Your task to perform on an android device: Search for logitech g910 on newegg, select the first entry, and add it to the cart. Image 0: 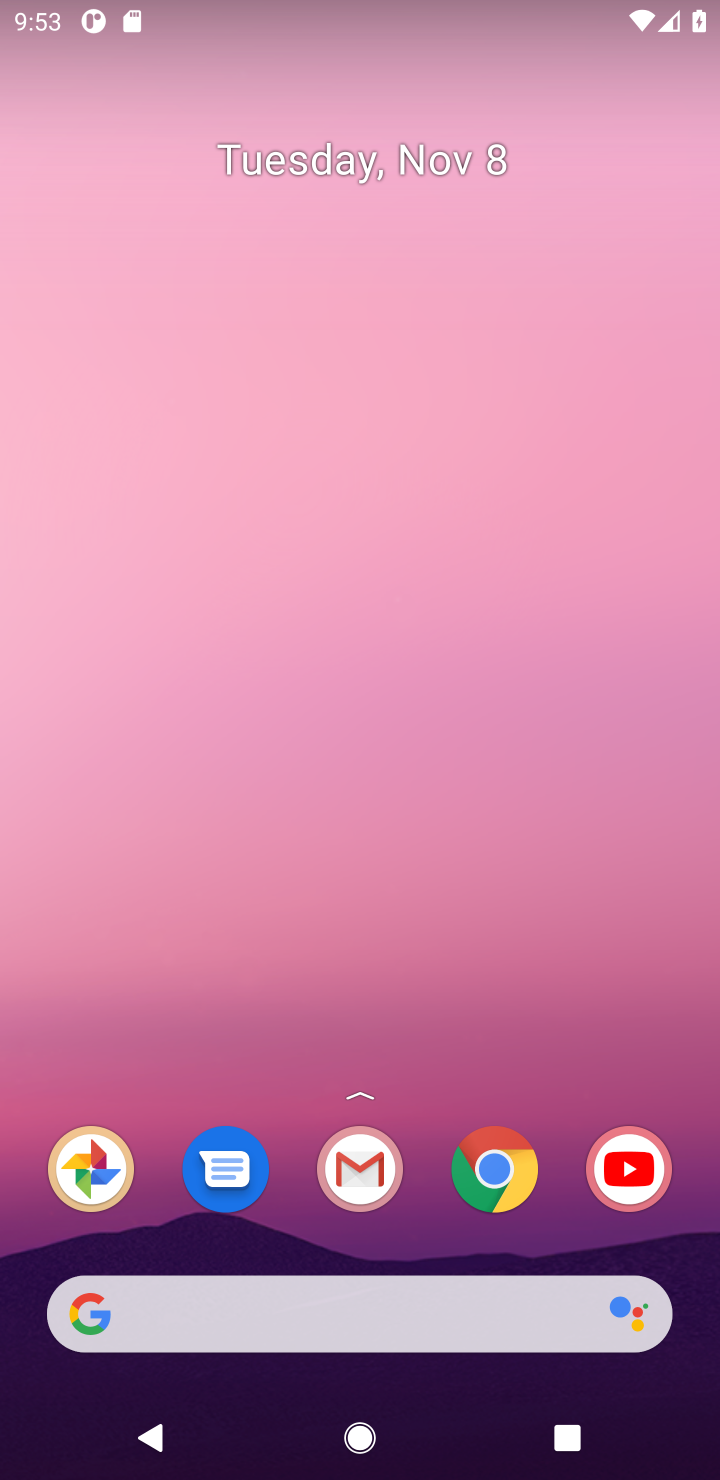
Step 0: click (476, 1169)
Your task to perform on an android device: Search for logitech g910 on newegg, select the first entry, and add it to the cart. Image 1: 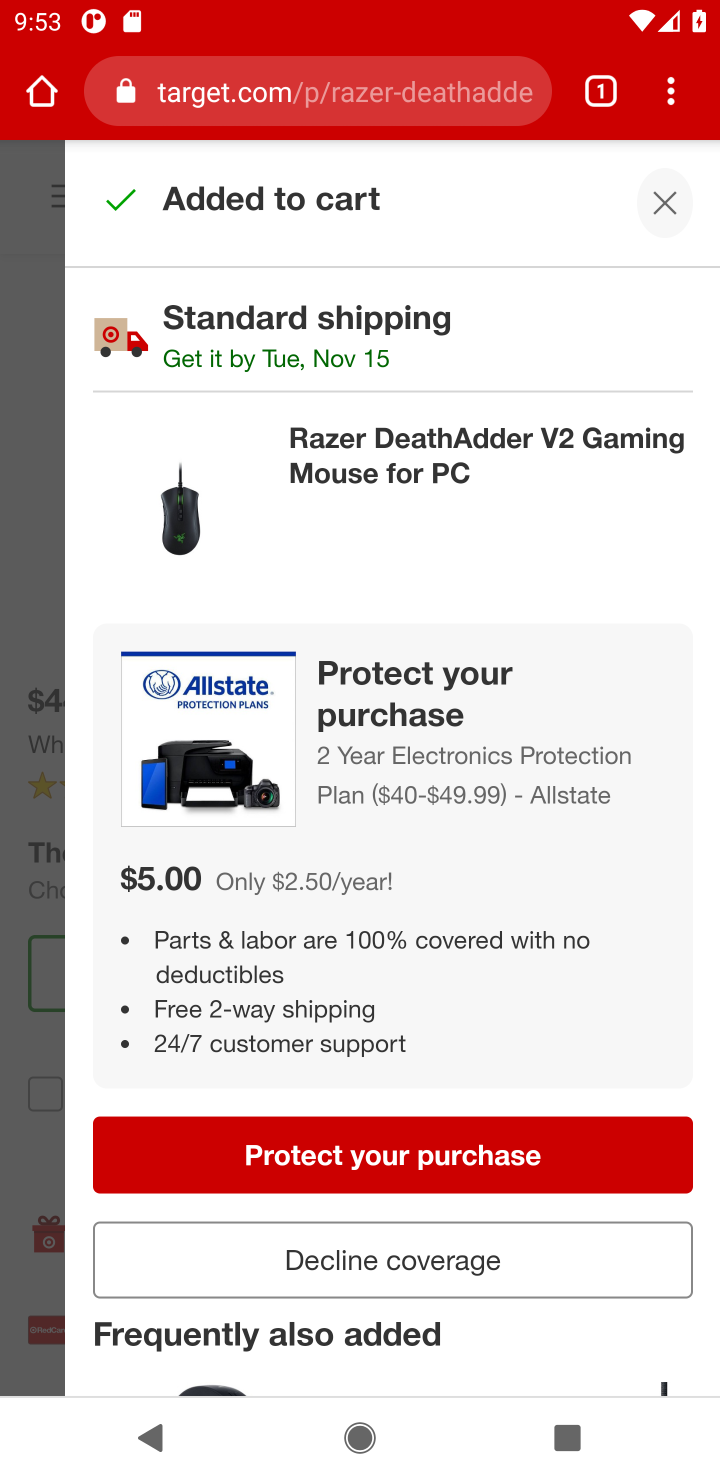
Step 1: click (673, 201)
Your task to perform on an android device: Search for logitech g910 on newegg, select the first entry, and add it to the cart. Image 2: 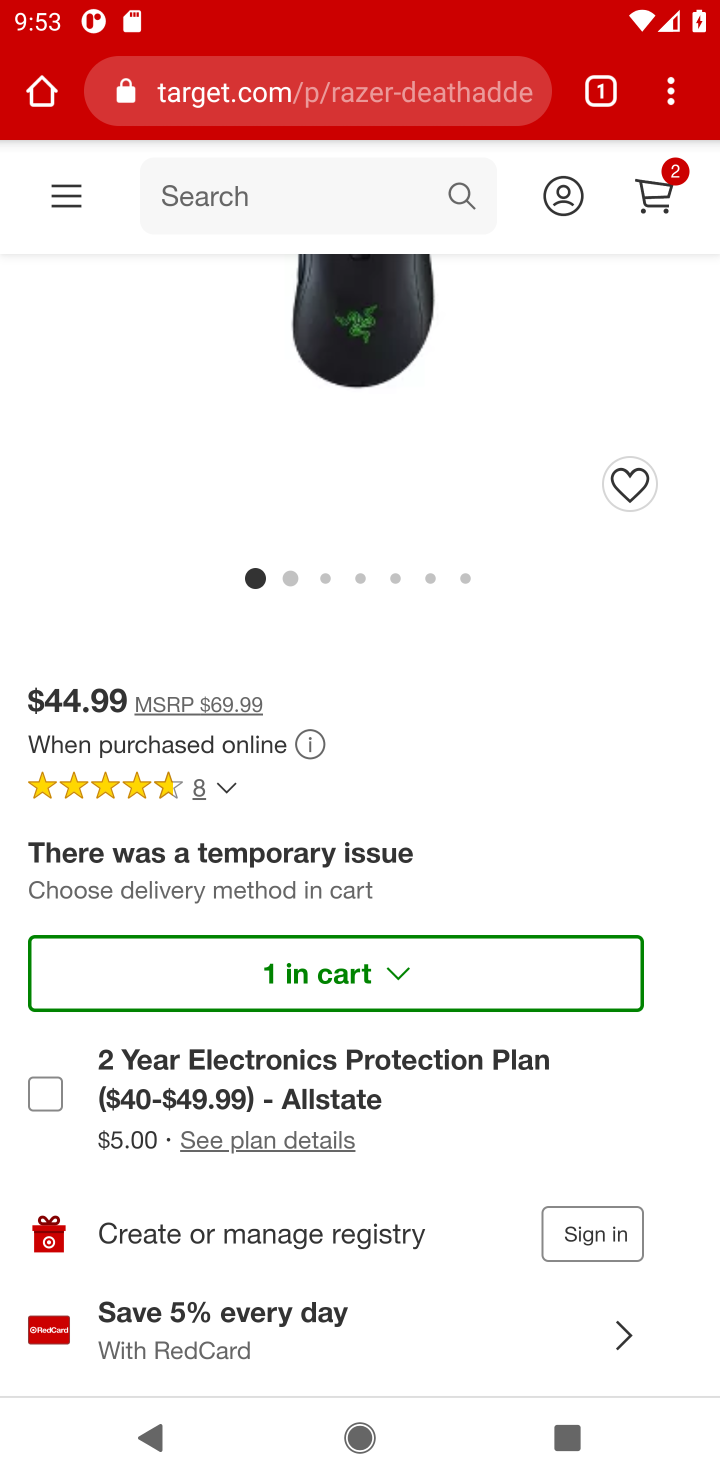
Step 2: click (450, 193)
Your task to perform on an android device: Search for logitech g910 on newegg, select the first entry, and add it to the cart. Image 3: 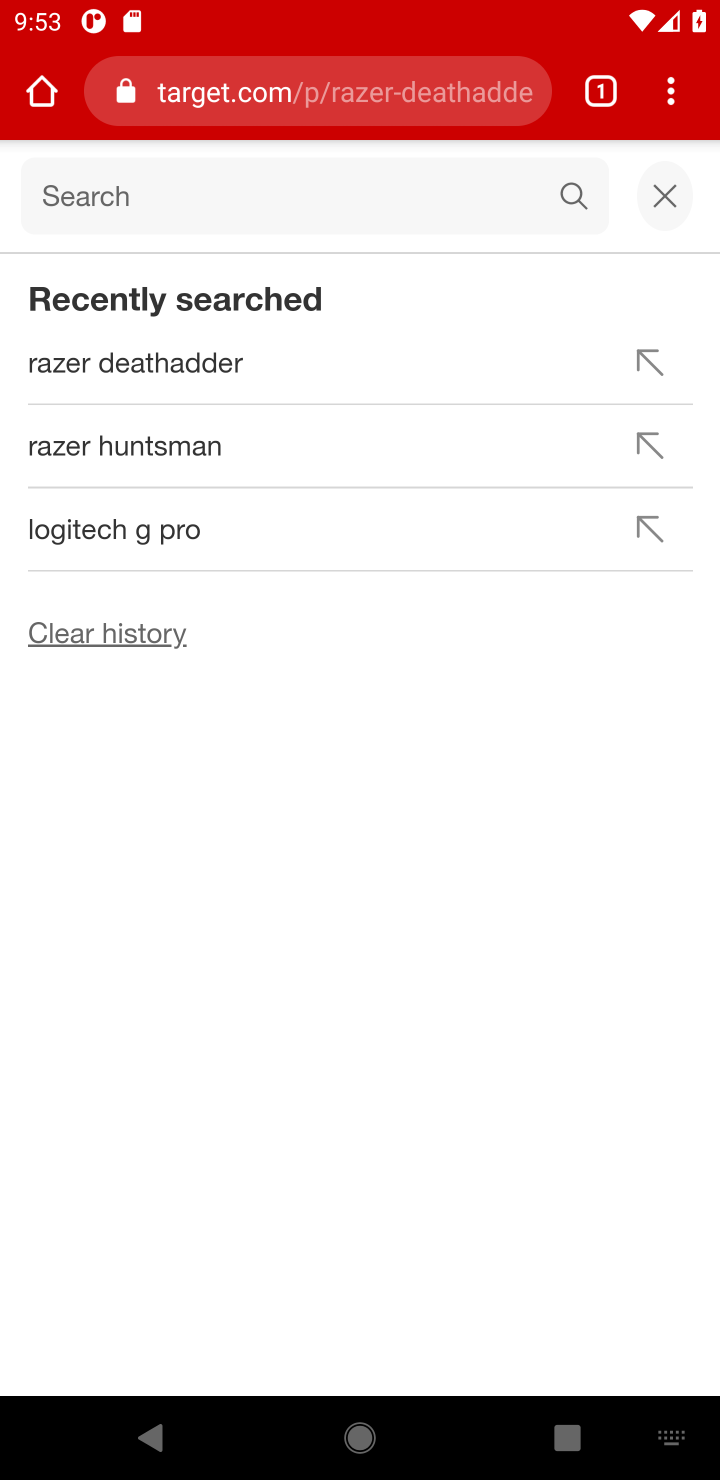
Step 3: type "newegg"
Your task to perform on an android device: Search for logitech g910 on newegg, select the first entry, and add it to the cart. Image 4: 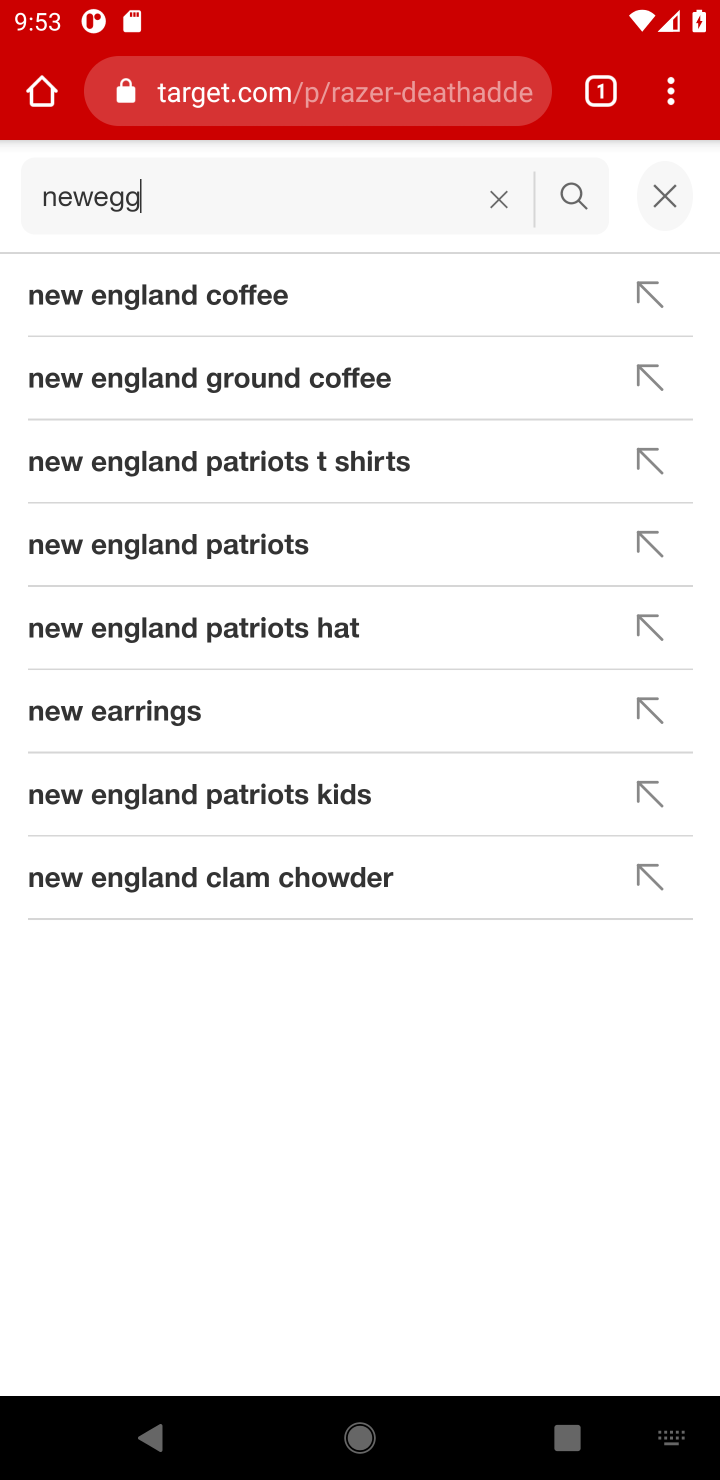
Step 4: click (265, 79)
Your task to perform on an android device: Search for logitech g910 on newegg, select the first entry, and add it to the cart. Image 5: 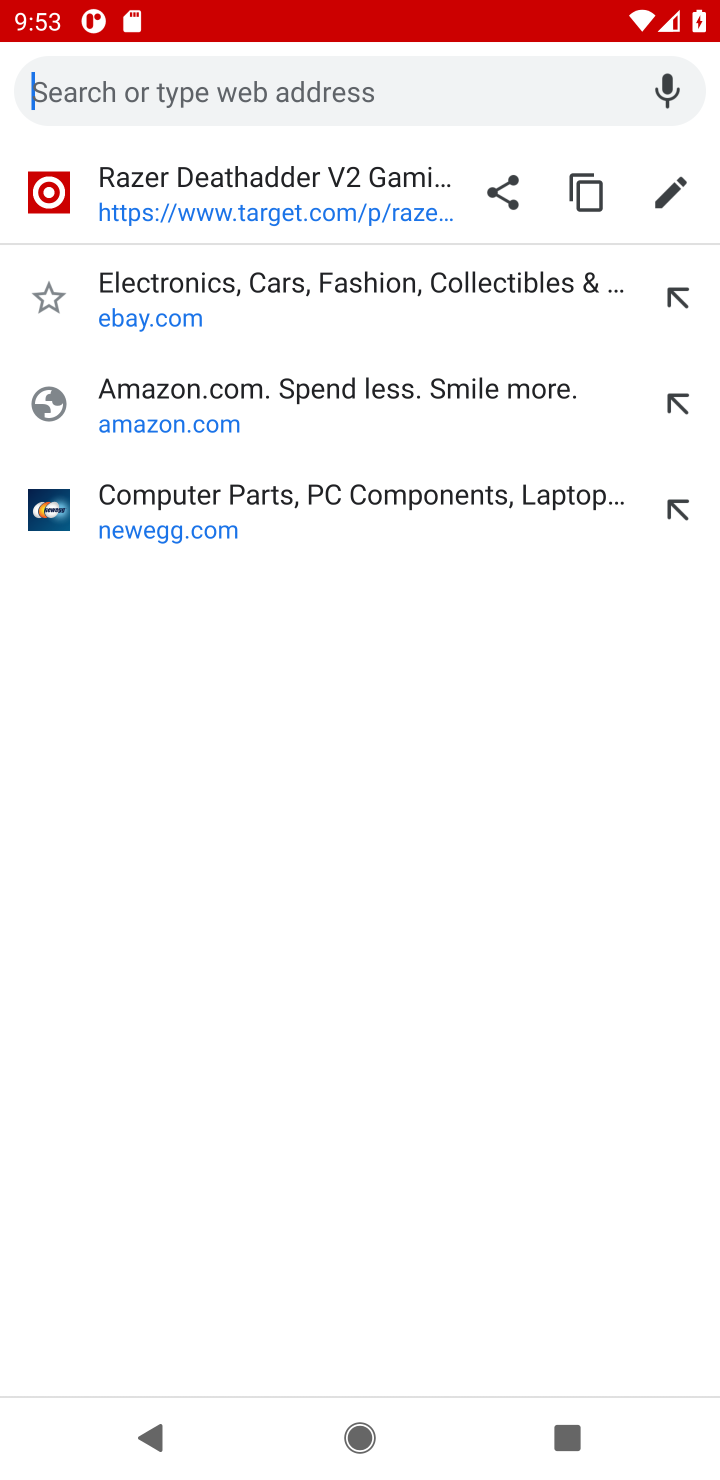
Step 5: type "newegg"
Your task to perform on an android device: Search for logitech g910 on newegg, select the first entry, and add it to the cart. Image 6: 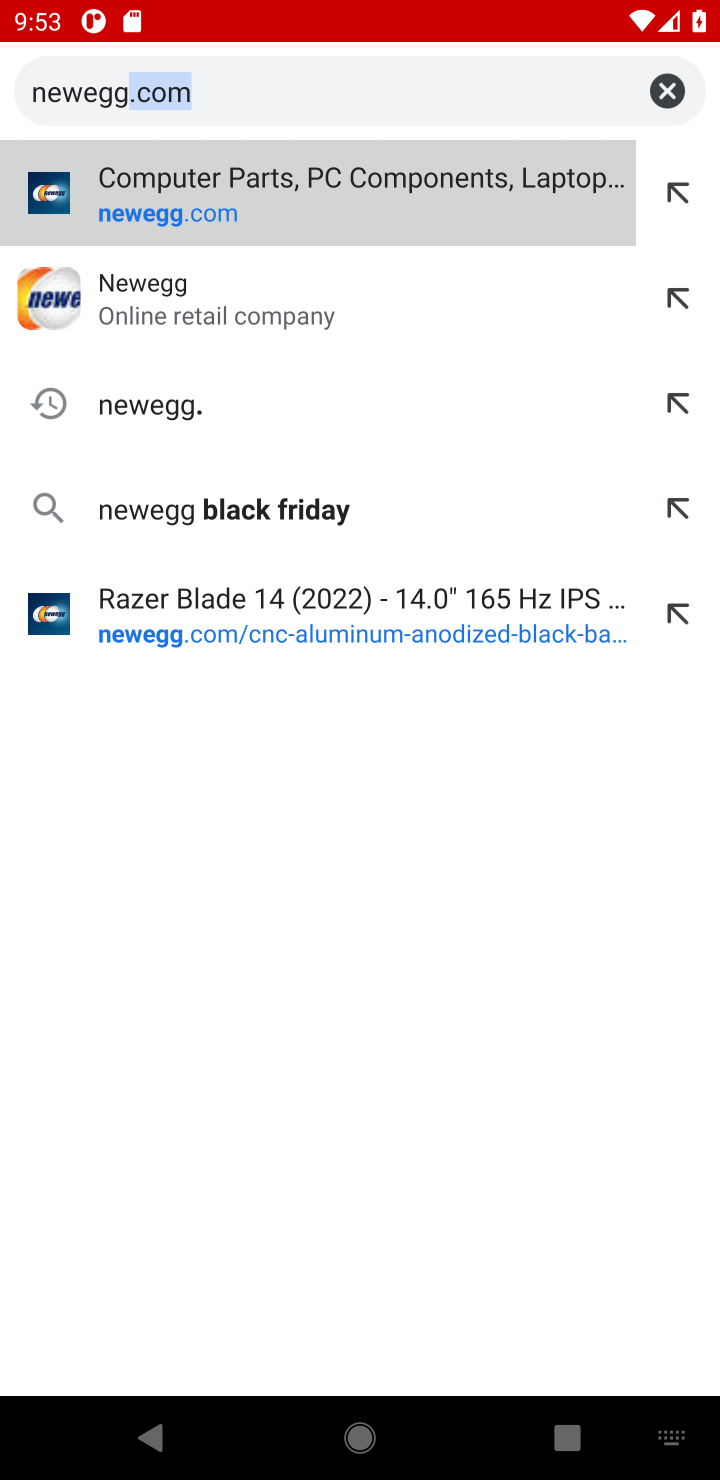
Step 6: click (327, 102)
Your task to perform on an android device: Search for logitech g910 on newegg, select the first entry, and add it to the cart. Image 7: 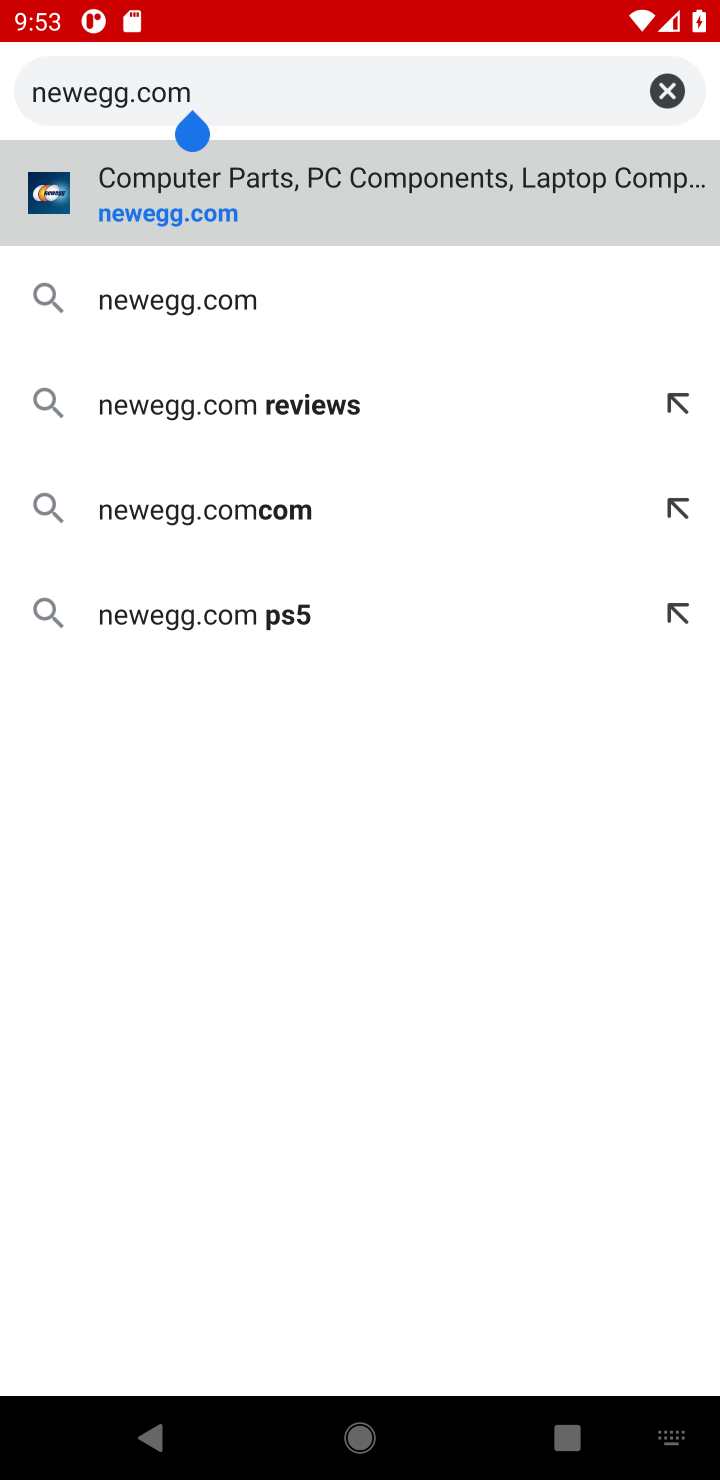
Step 7: click (229, 304)
Your task to perform on an android device: Search for logitech g910 on newegg, select the first entry, and add it to the cart. Image 8: 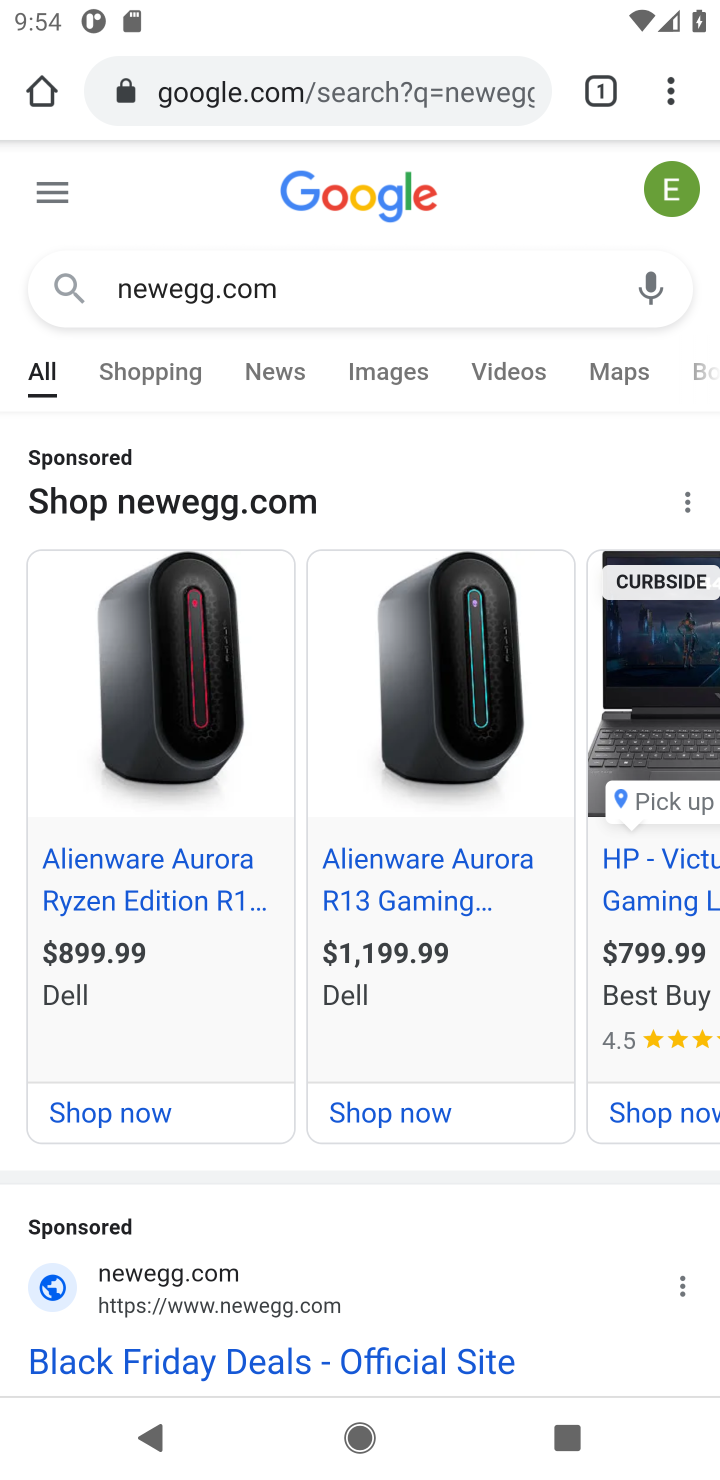
Step 8: click (288, 1294)
Your task to perform on an android device: Search for logitech g910 on newegg, select the first entry, and add it to the cart. Image 9: 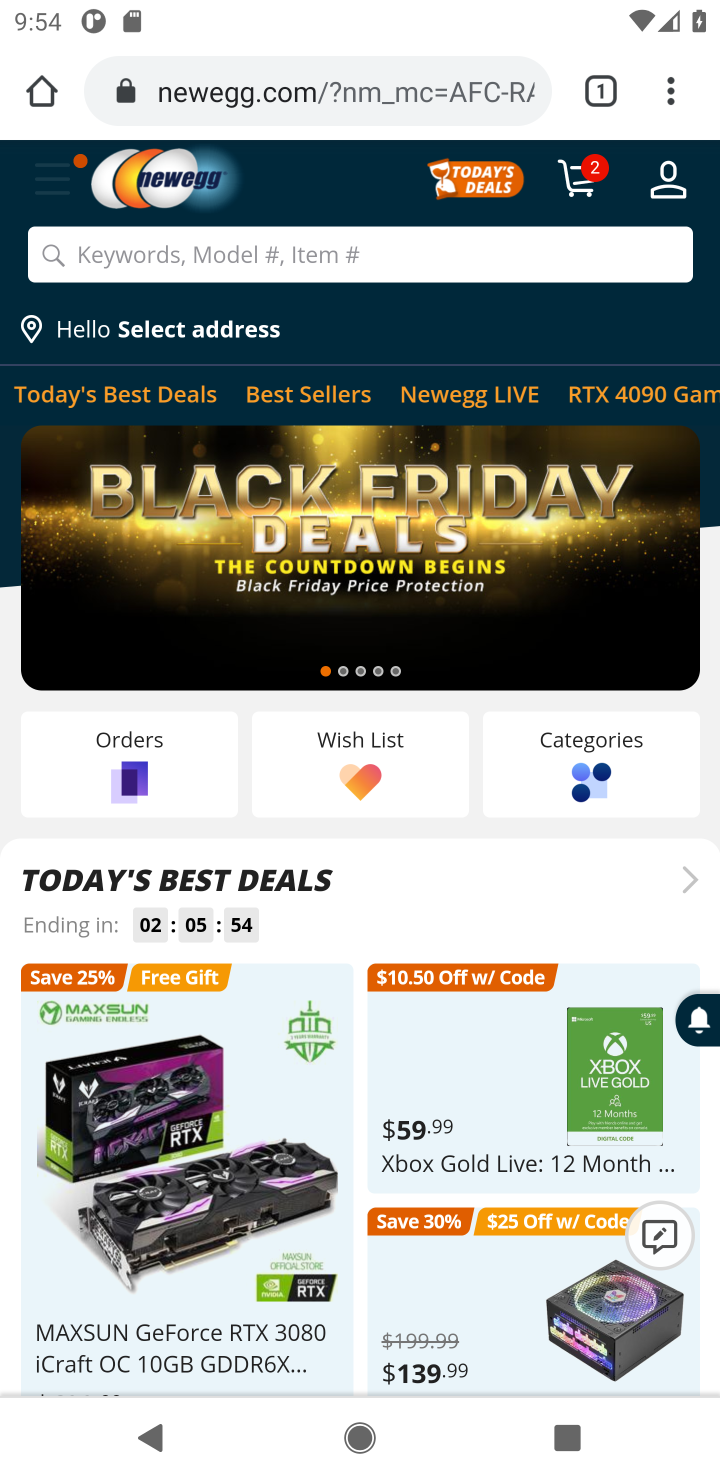
Step 9: click (410, 254)
Your task to perform on an android device: Search for logitech g910 on newegg, select the first entry, and add it to the cart. Image 10: 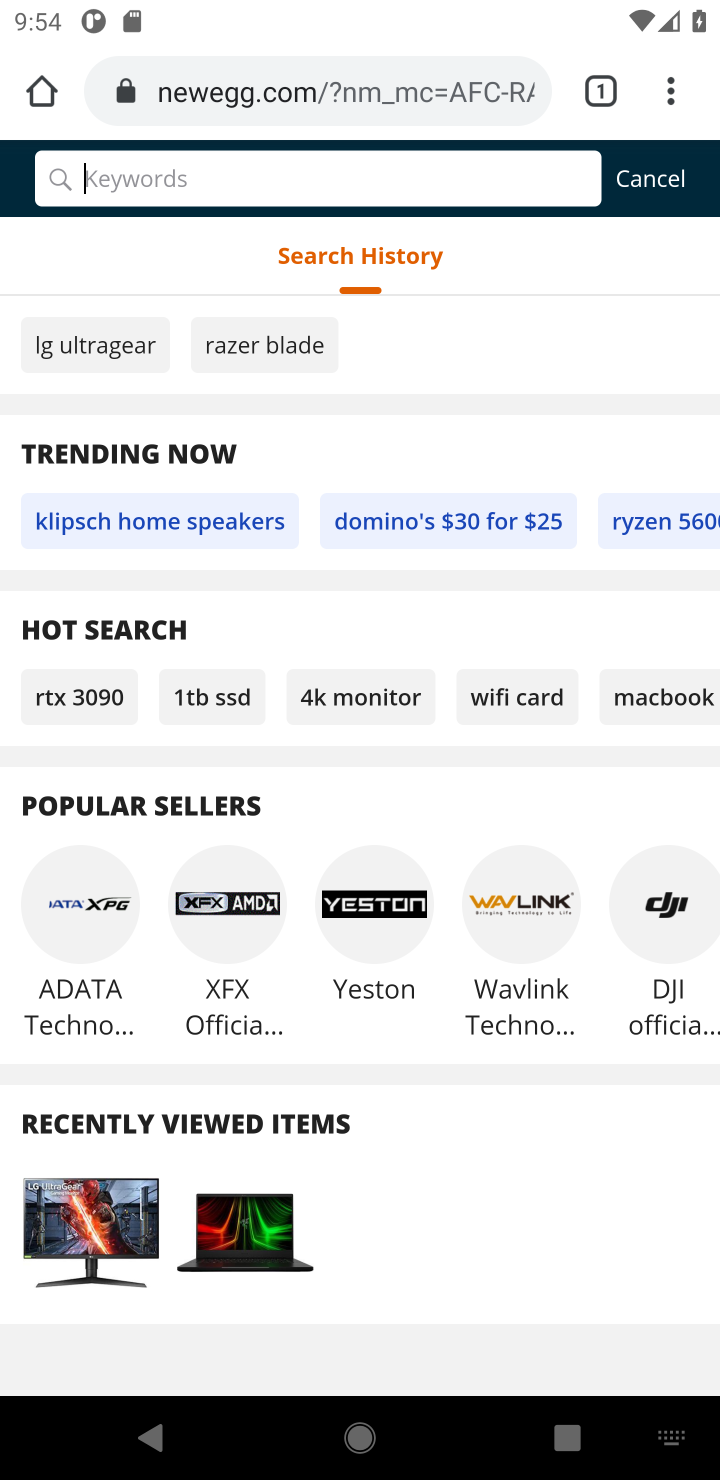
Step 10: type "logitech g910"
Your task to perform on an android device: Search for logitech g910 on newegg, select the first entry, and add it to the cart. Image 11: 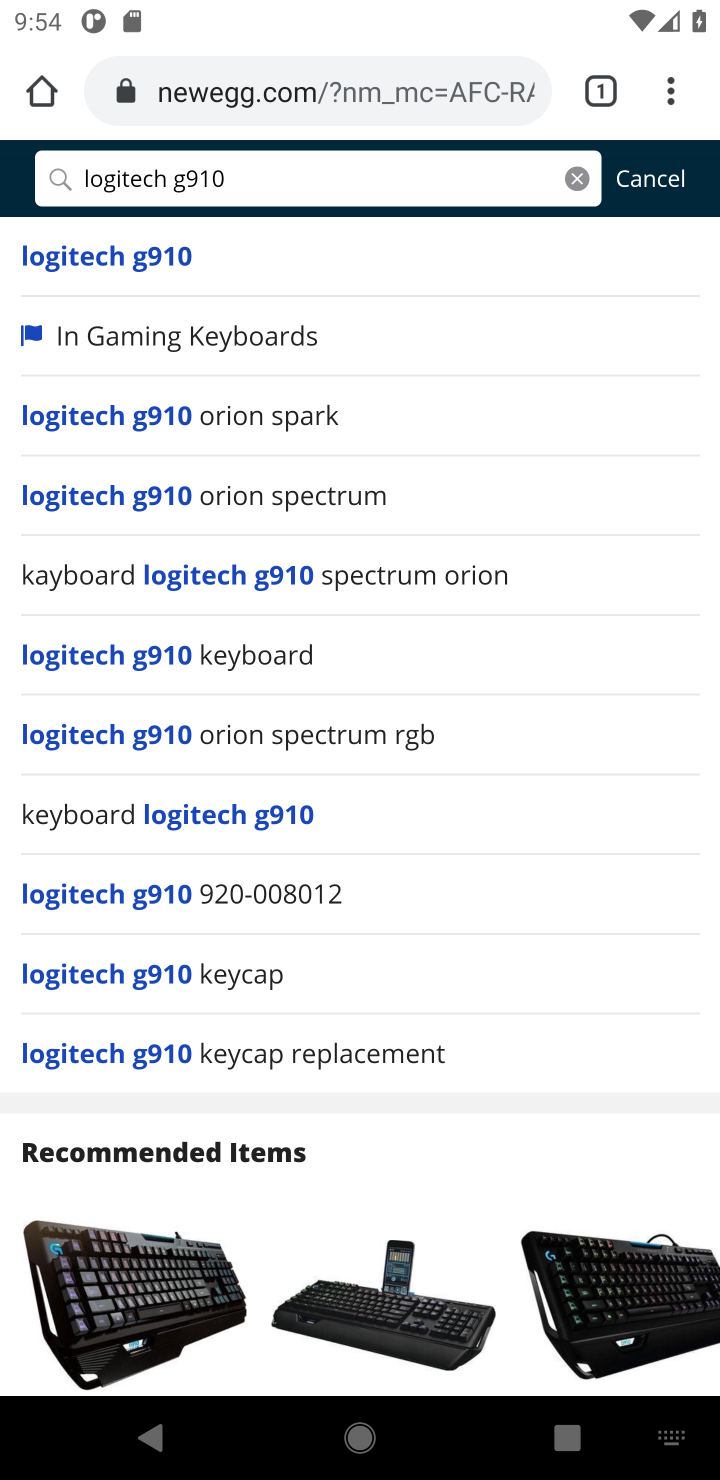
Step 11: click (171, 264)
Your task to perform on an android device: Search for logitech g910 on newegg, select the first entry, and add it to the cart. Image 12: 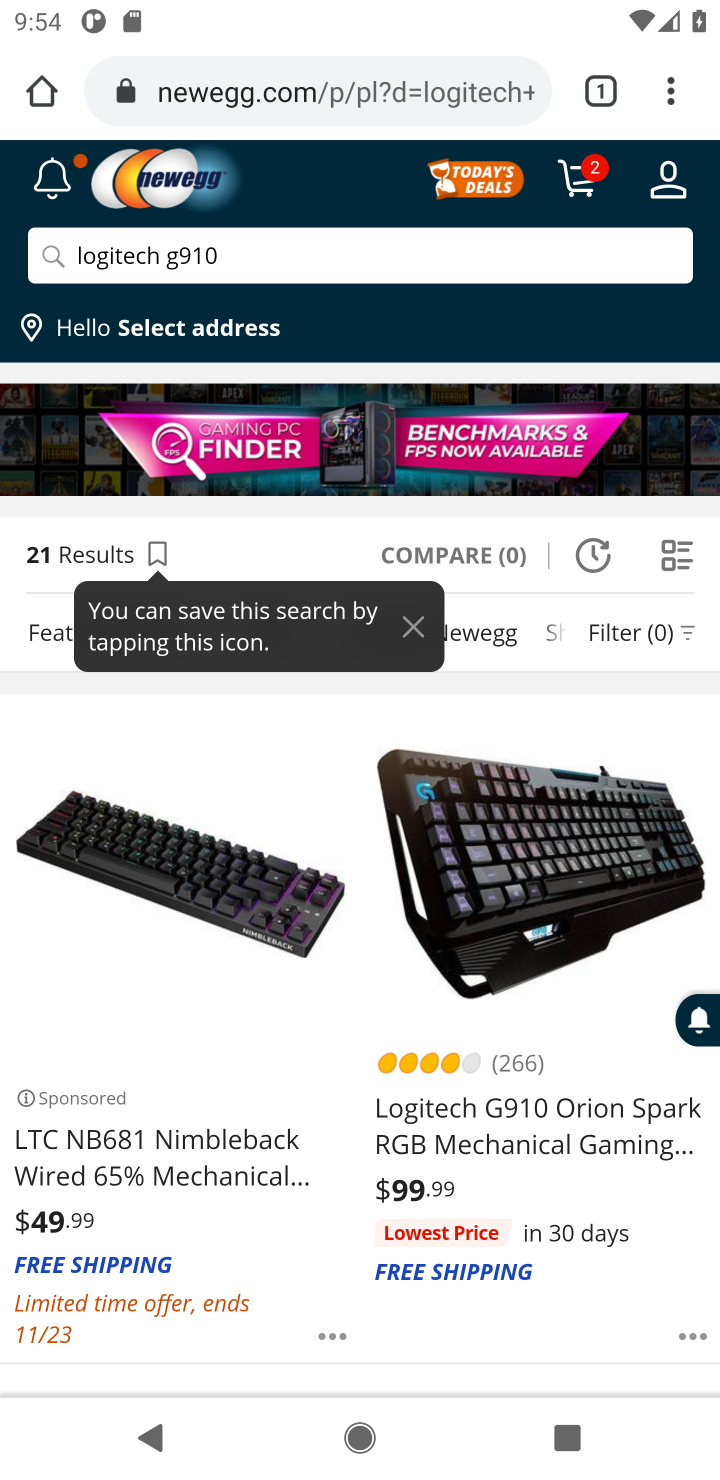
Step 12: click (537, 900)
Your task to perform on an android device: Search for logitech g910 on newegg, select the first entry, and add it to the cart. Image 13: 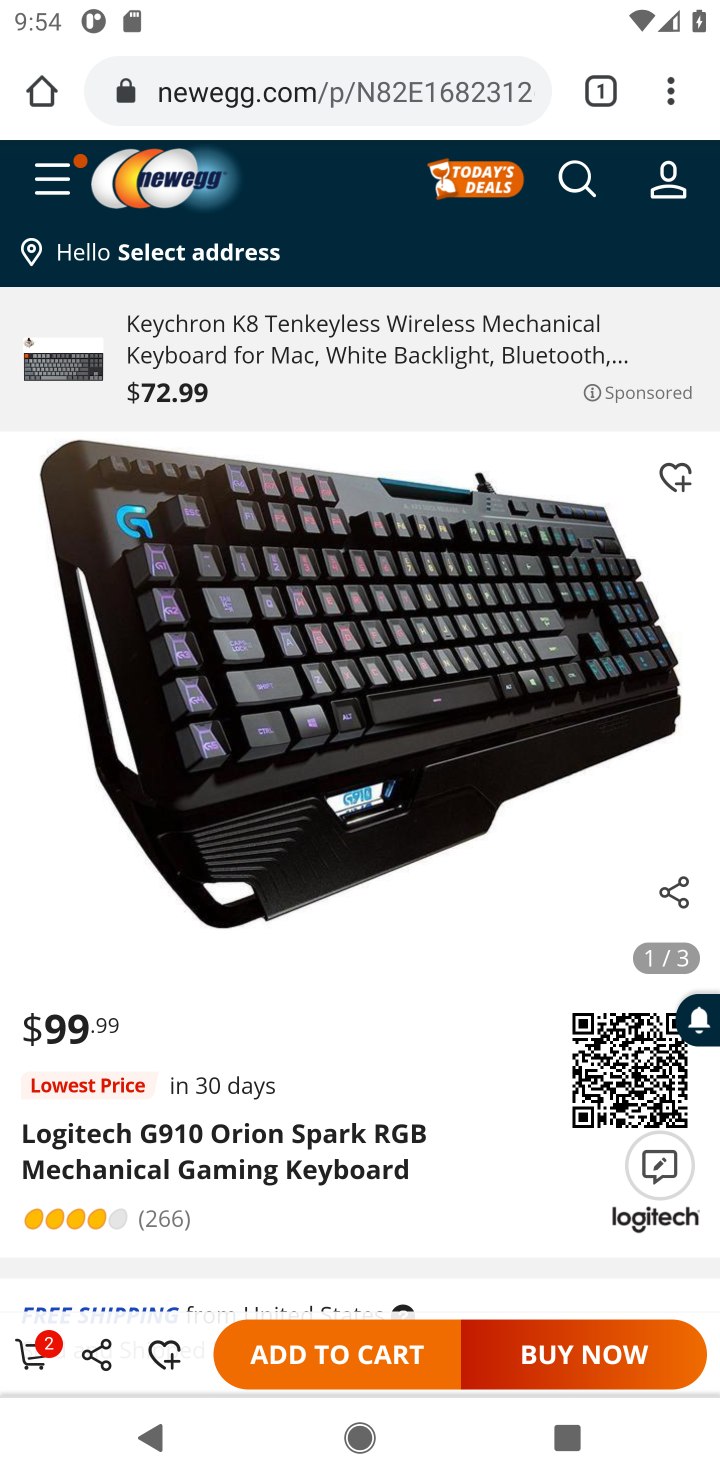
Step 13: click (344, 1338)
Your task to perform on an android device: Search for logitech g910 on newegg, select the first entry, and add it to the cart. Image 14: 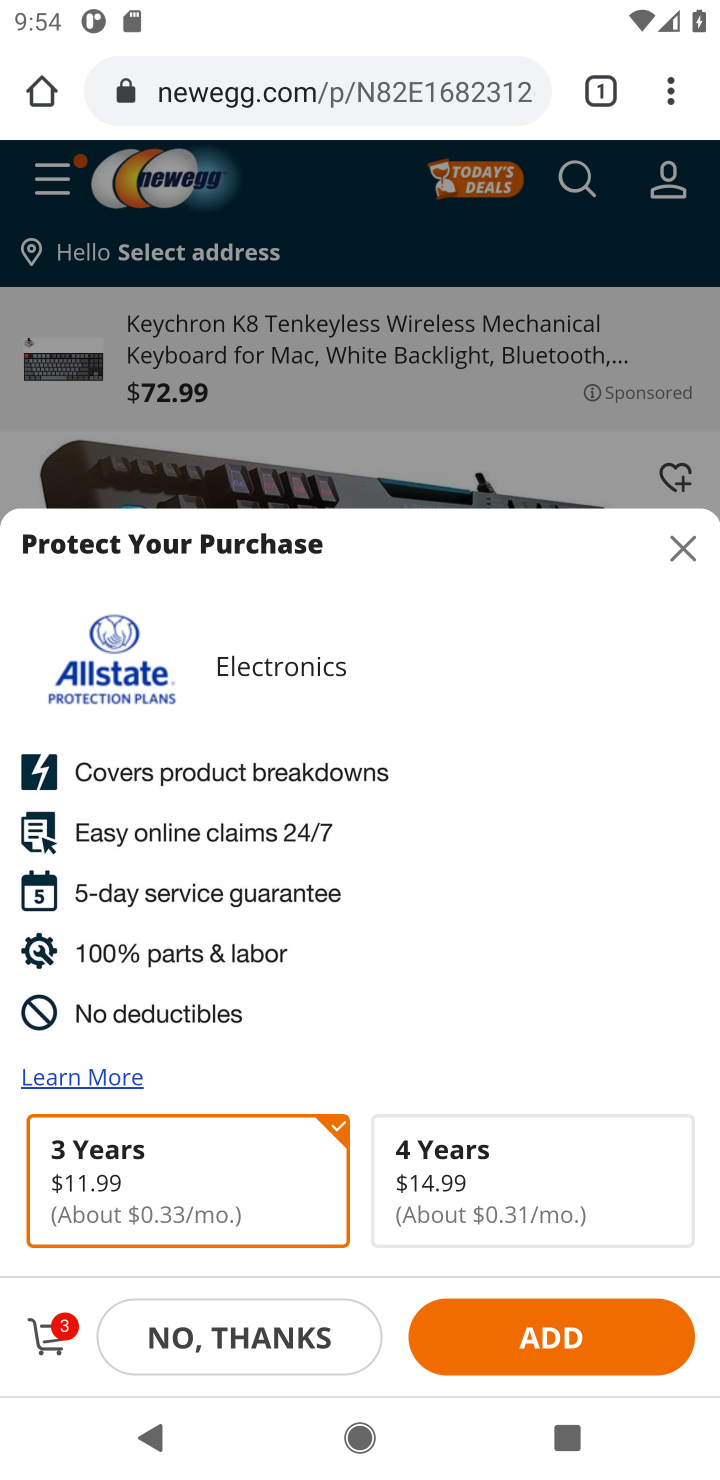
Step 14: task complete